Your task to perform on an android device: set the timer Image 0: 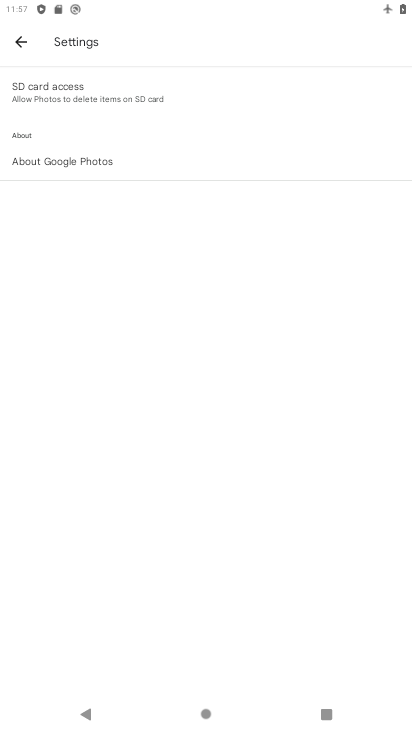
Step 0: press home button
Your task to perform on an android device: set the timer Image 1: 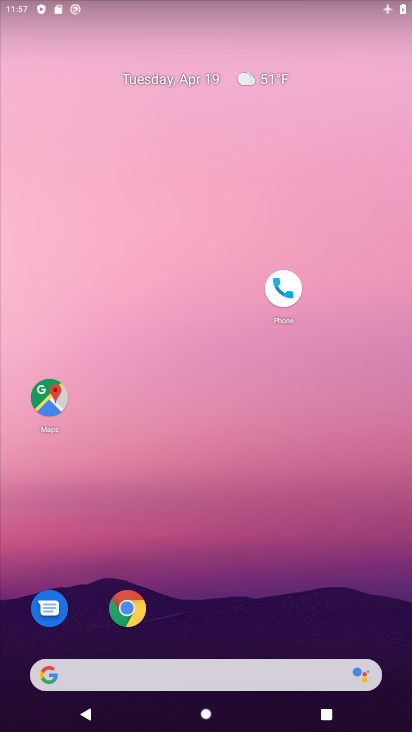
Step 1: drag from (161, 639) to (201, 208)
Your task to perform on an android device: set the timer Image 2: 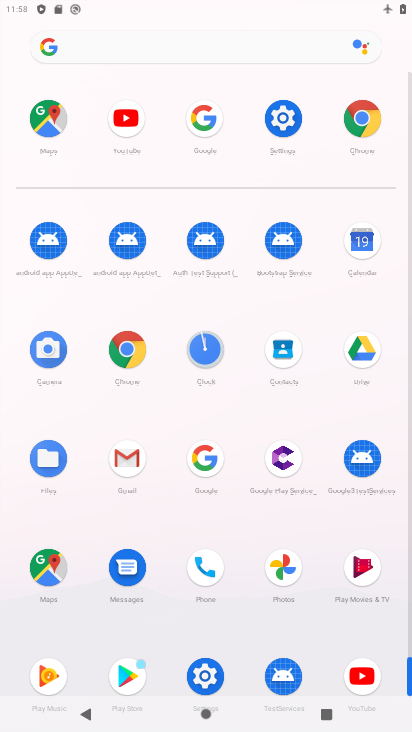
Step 2: click (208, 352)
Your task to perform on an android device: set the timer Image 3: 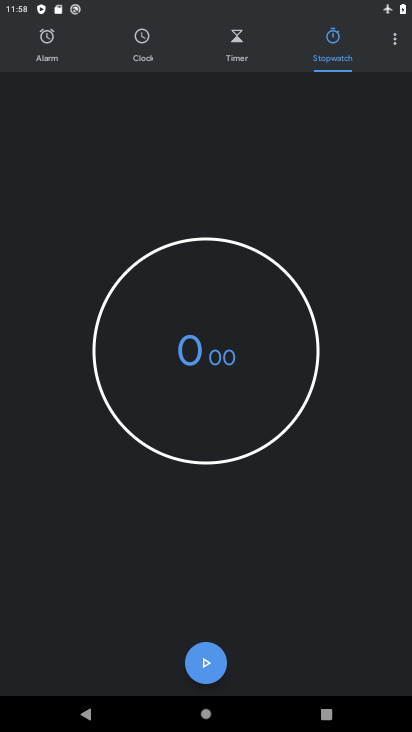
Step 3: click (231, 56)
Your task to perform on an android device: set the timer Image 4: 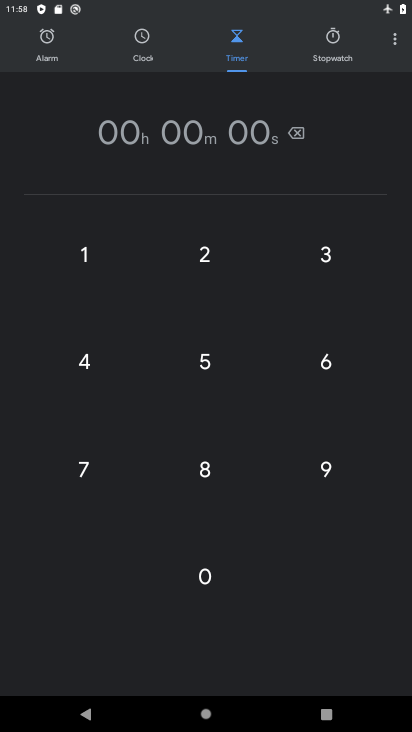
Step 4: click (202, 257)
Your task to perform on an android device: set the timer Image 5: 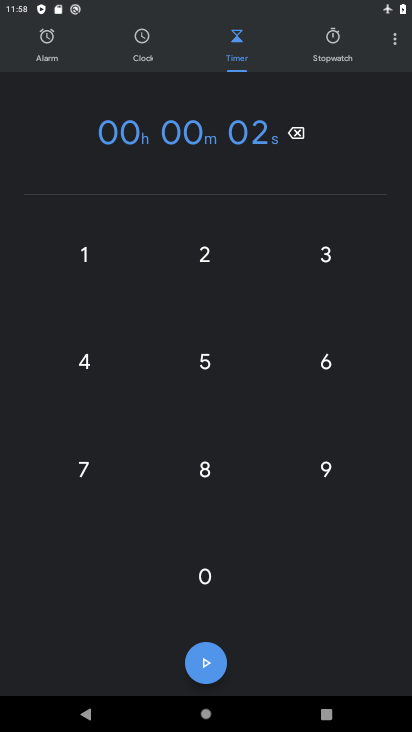
Step 5: click (314, 256)
Your task to perform on an android device: set the timer Image 6: 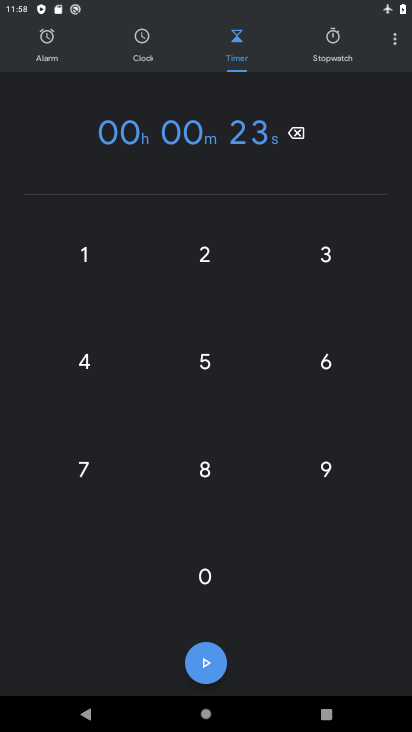
Step 6: click (220, 355)
Your task to perform on an android device: set the timer Image 7: 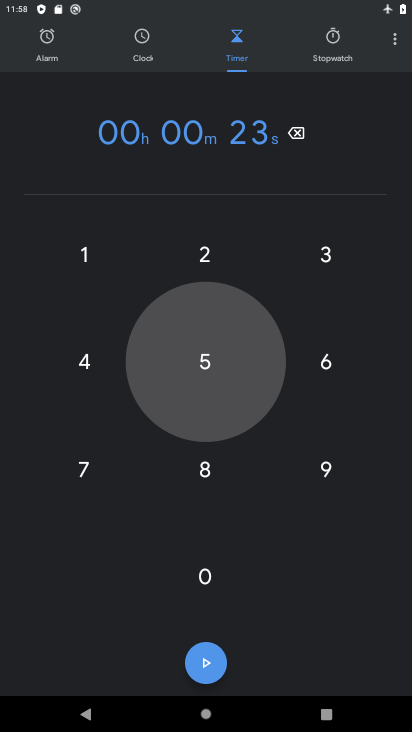
Step 7: click (320, 349)
Your task to perform on an android device: set the timer Image 8: 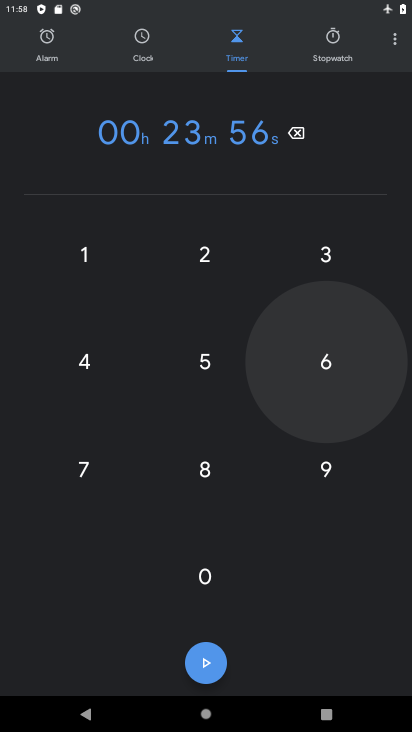
Step 8: click (227, 450)
Your task to perform on an android device: set the timer Image 9: 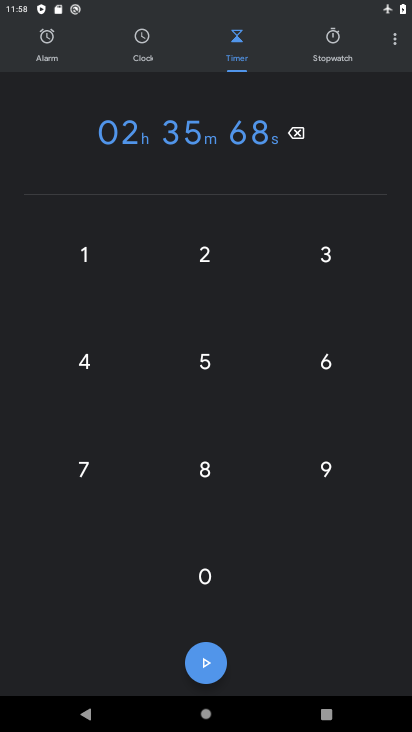
Step 9: click (319, 437)
Your task to perform on an android device: set the timer Image 10: 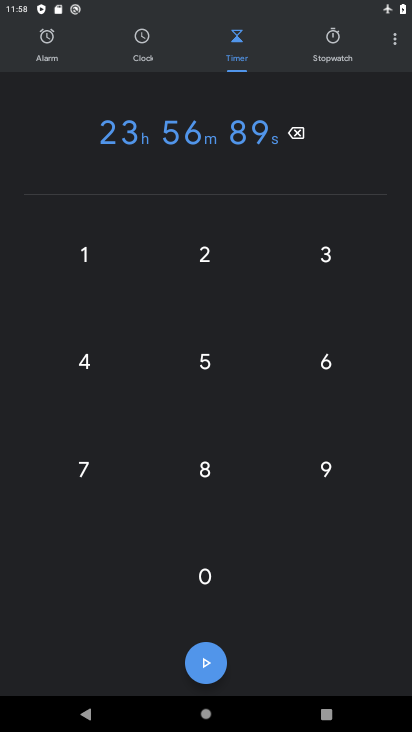
Step 10: task complete